Your task to perform on an android device: change the clock display to analog Image 0: 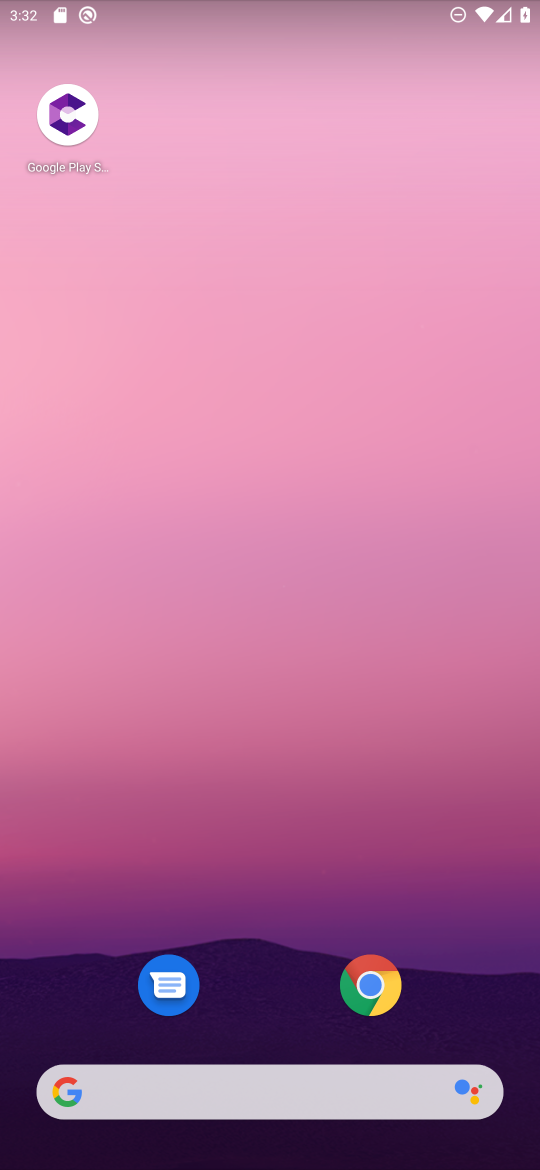
Step 0: drag from (259, 979) to (227, 115)
Your task to perform on an android device: change the clock display to analog Image 1: 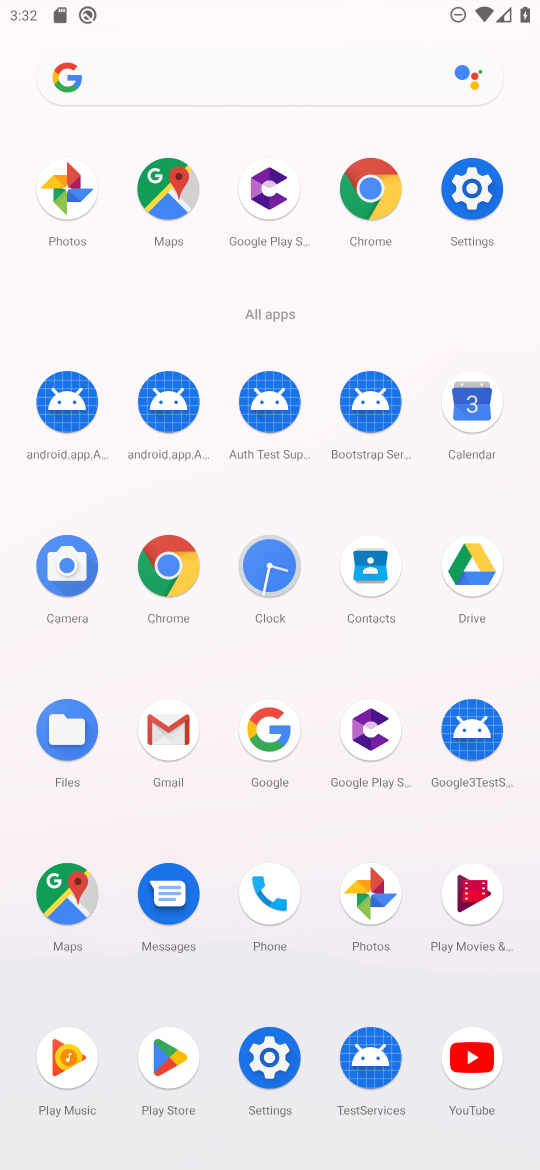
Step 1: click (269, 566)
Your task to perform on an android device: change the clock display to analog Image 2: 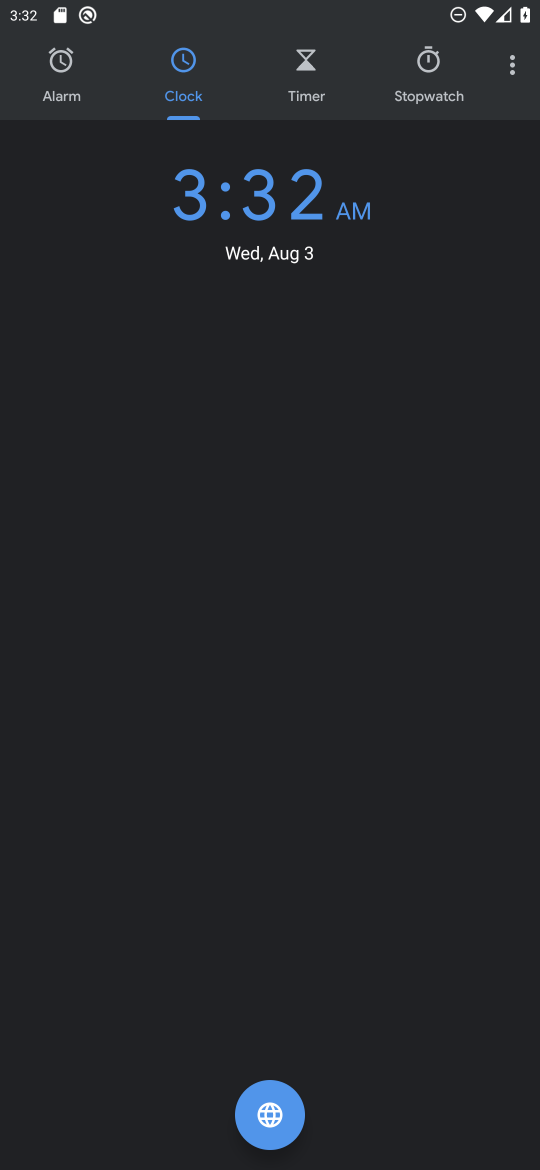
Step 2: click (501, 74)
Your task to perform on an android device: change the clock display to analog Image 3: 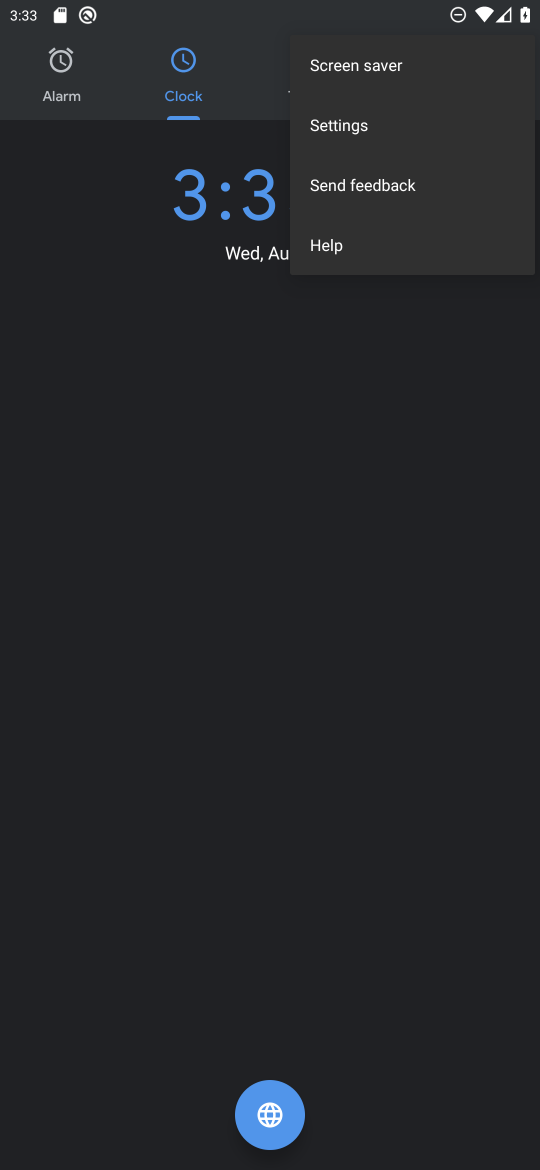
Step 3: click (396, 126)
Your task to perform on an android device: change the clock display to analog Image 4: 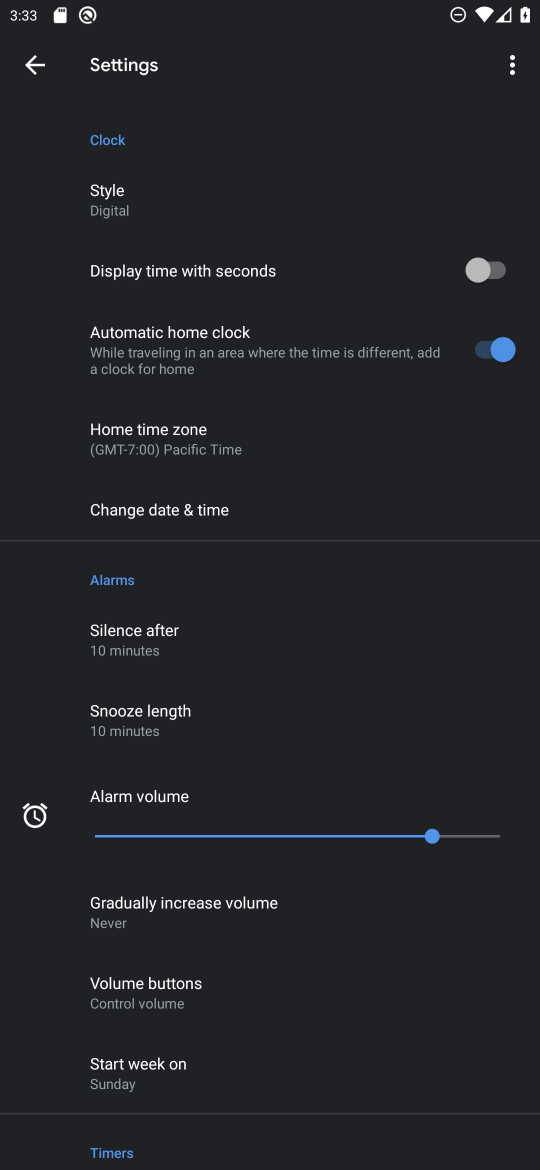
Step 4: click (130, 214)
Your task to perform on an android device: change the clock display to analog Image 5: 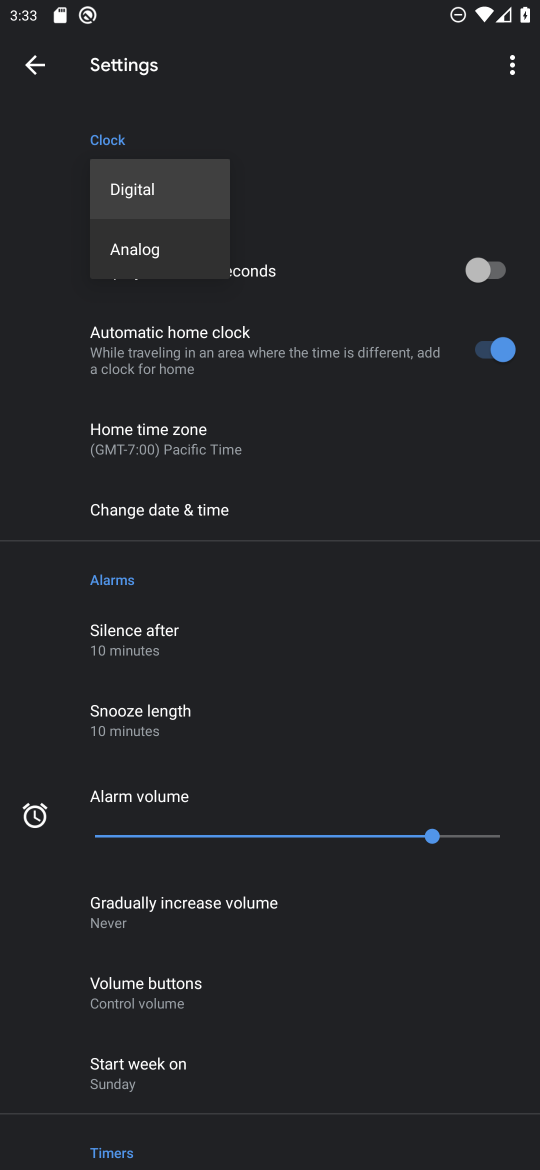
Step 5: click (156, 265)
Your task to perform on an android device: change the clock display to analog Image 6: 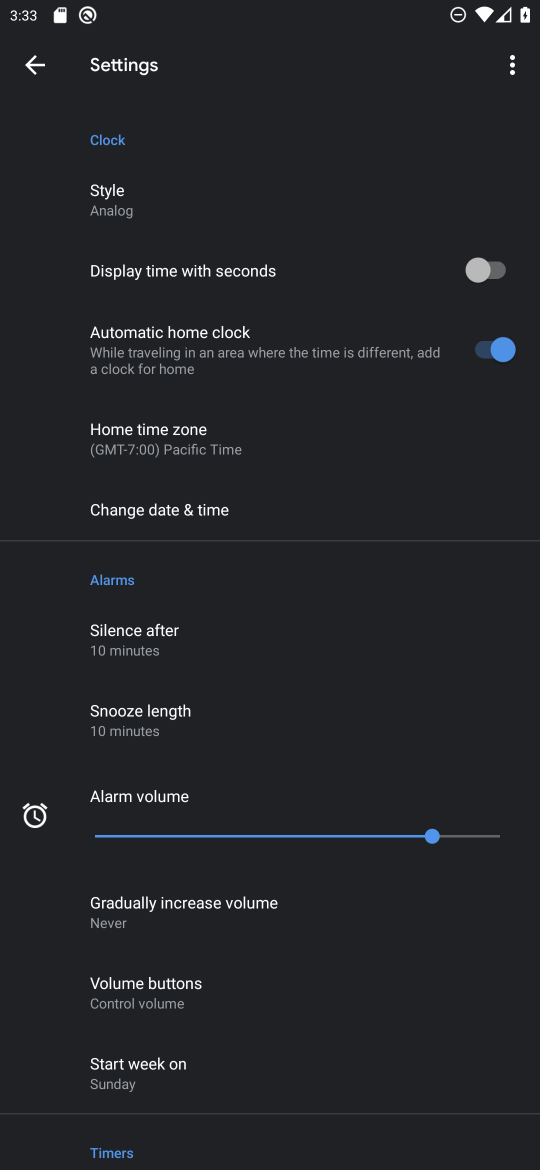
Step 6: task complete